Your task to perform on an android device: move an email to a new category in the gmail app Image 0: 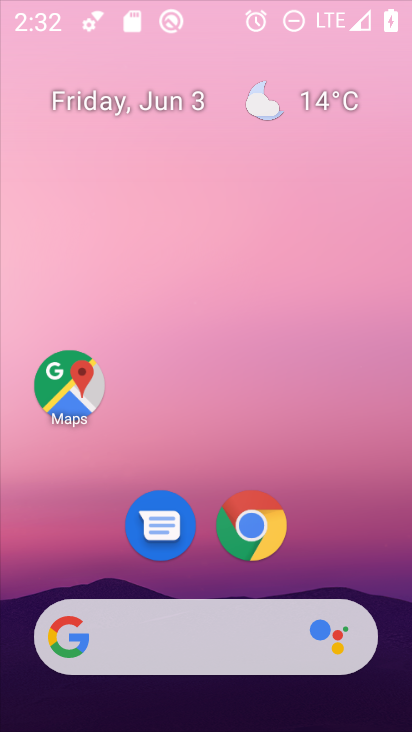
Step 0: drag from (366, 568) to (352, 265)
Your task to perform on an android device: move an email to a new category in the gmail app Image 1: 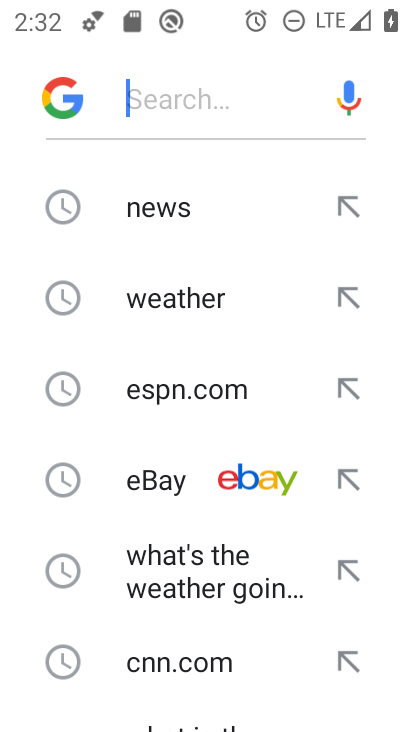
Step 1: press home button
Your task to perform on an android device: move an email to a new category in the gmail app Image 2: 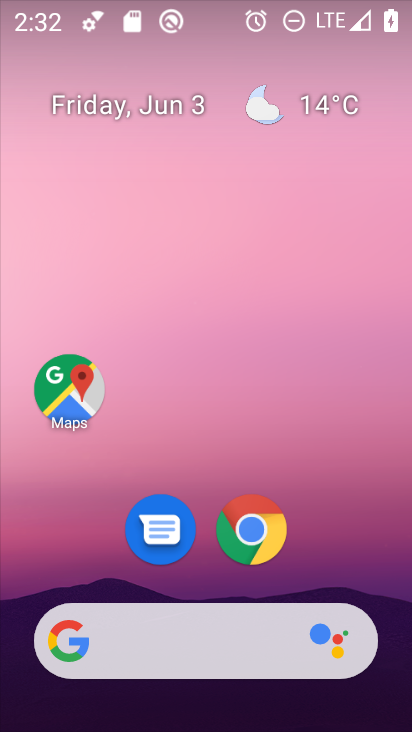
Step 2: drag from (371, 541) to (369, 236)
Your task to perform on an android device: move an email to a new category in the gmail app Image 3: 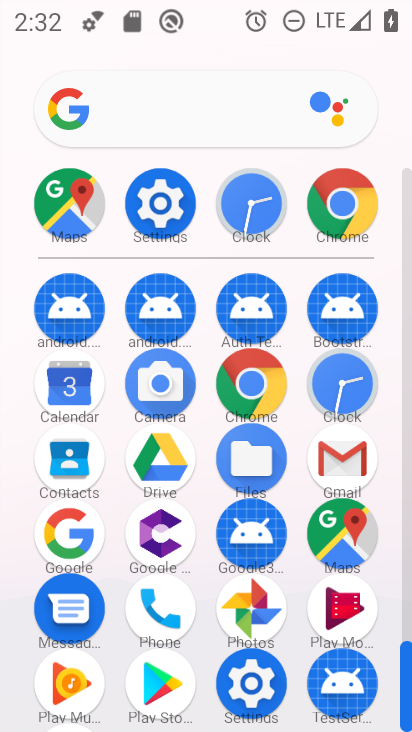
Step 3: click (347, 459)
Your task to perform on an android device: move an email to a new category in the gmail app Image 4: 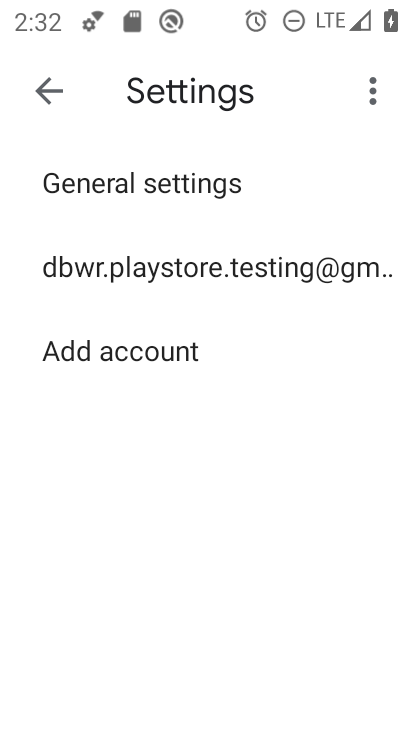
Step 4: press back button
Your task to perform on an android device: move an email to a new category in the gmail app Image 5: 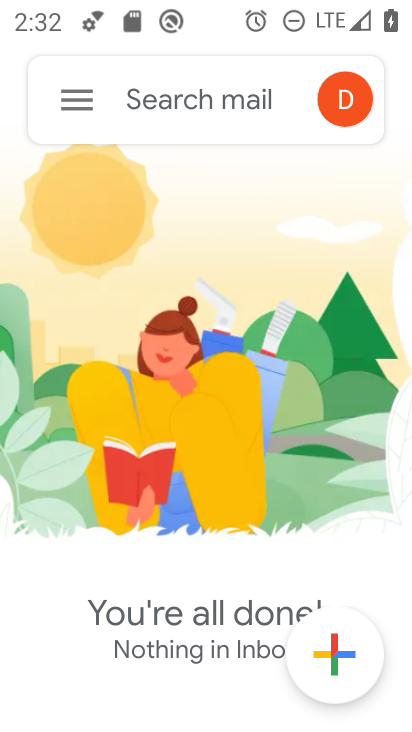
Step 5: click (92, 108)
Your task to perform on an android device: move an email to a new category in the gmail app Image 6: 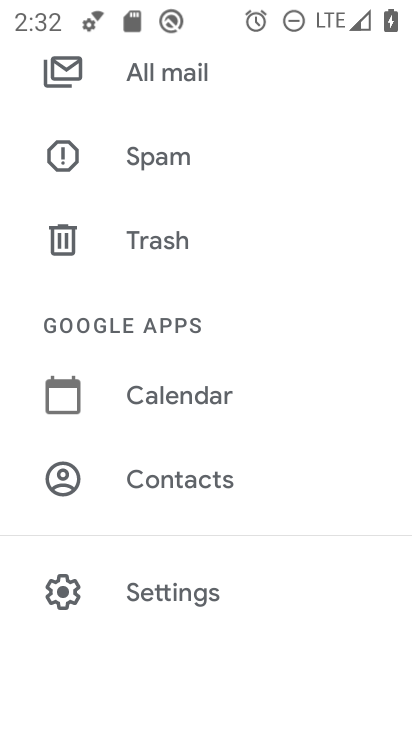
Step 6: drag from (316, 270) to (309, 447)
Your task to perform on an android device: move an email to a new category in the gmail app Image 7: 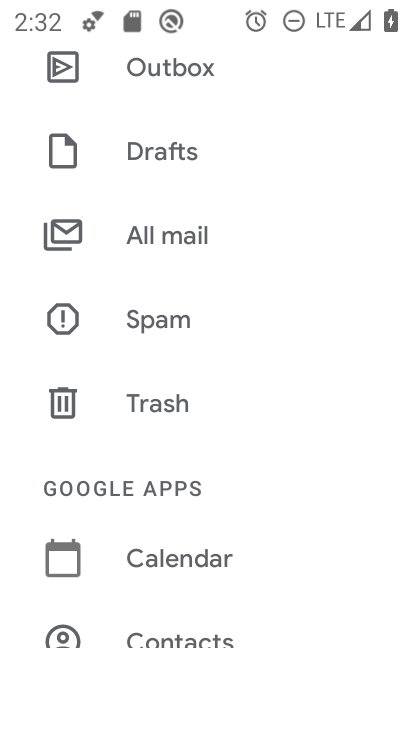
Step 7: drag from (293, 247) to (306, 448)
Your task to perform on an android device: move an email to a new category in the gmail app Image 8: 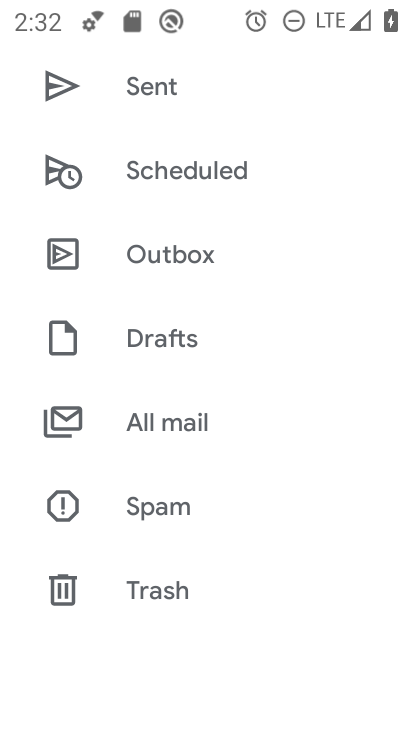
Step 8: drag from (299, 251) to (300, 428)
Your task to perform on an android device: move an email to a new category in the gmail app Image 9: 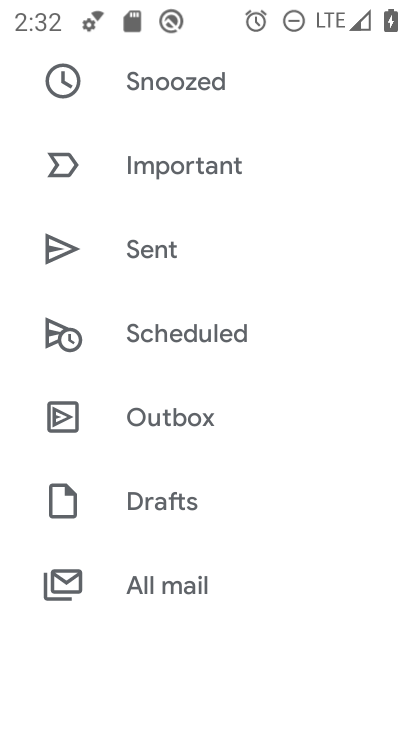
Step 9: drag from (292, 274) to (302, 386)
Your task to perform on an android device: move an email to a new category in the gmail app Image 10: 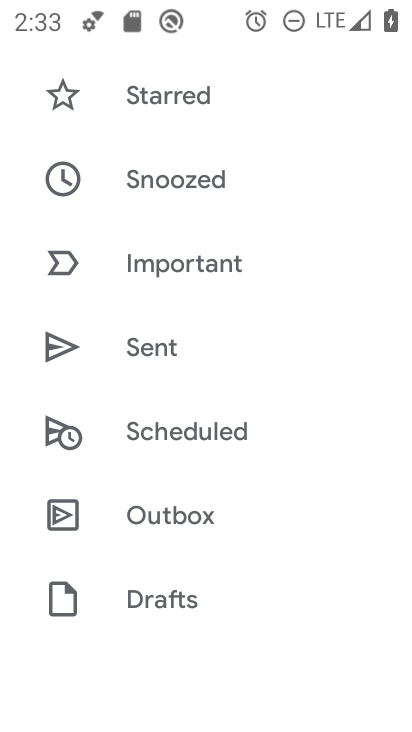
Step 10: drag from (309, 268) to (316, 397)
Your task to perform on an android device: move an email to a new category in the gmail app Image 11: 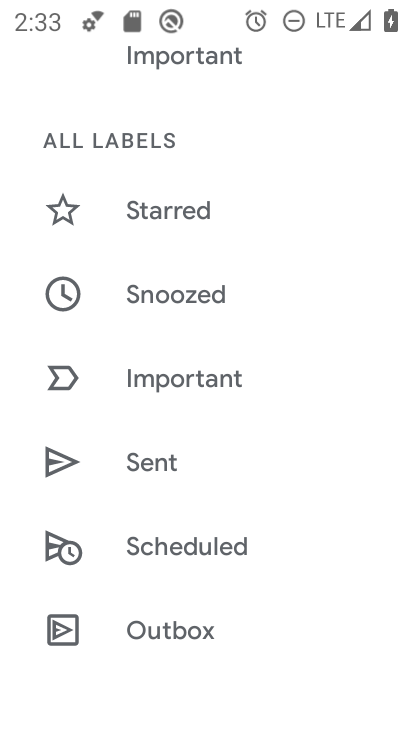
Step 11: drag from (307, 318) to (308, 428)
Your task to perform on an android device: move an email to a new category in the gmail app Image 12: 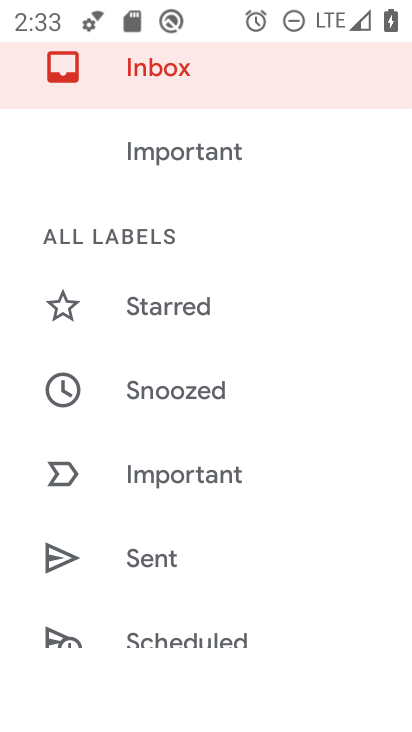
Step 12: drag from (311, 237) to (323, 385)
Your task to perform on an android device: move an email to a new category in the gmail app Image 13: 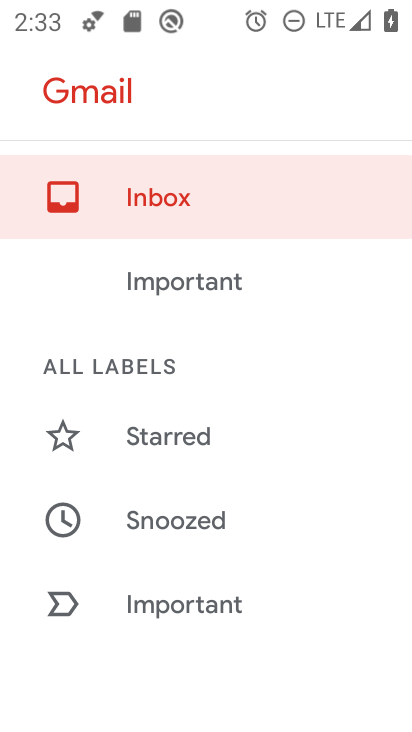
Step 13: click (235, 205)
Your task to perform on an android device: move an email to a new category in the gmail app Image 14: 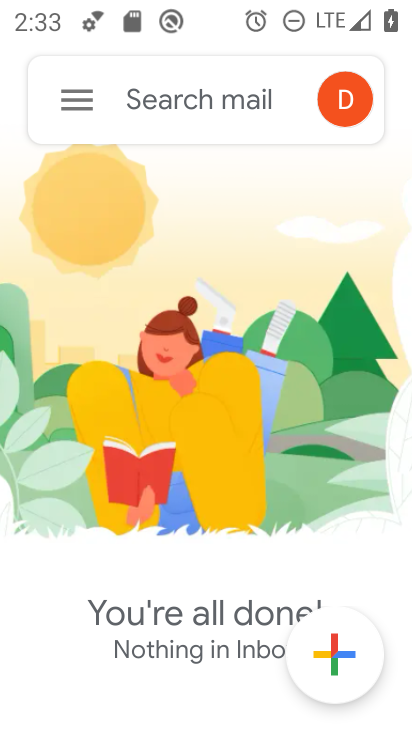
Step 14: task complete